Your task to perform on an android device: Open settings on Google Maps Image 0: 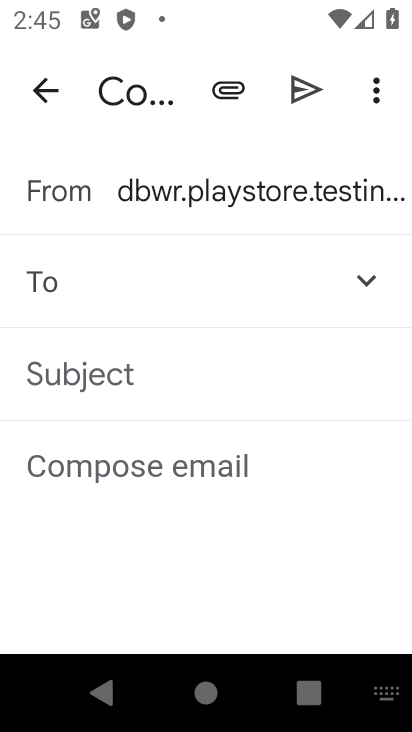
Step 0: task complete